Your task to perform on an android device: change the clock display to analog Image 0: 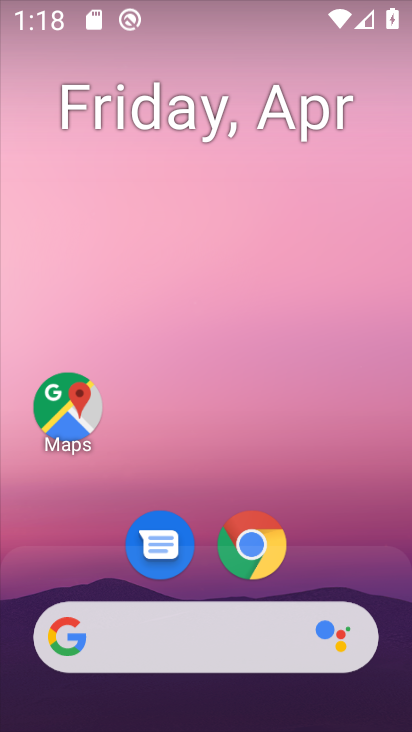
Step 0: drag from (350, 390) to (347, 164)
Your task to perform on an android device: change the clock display to analog Image 1: 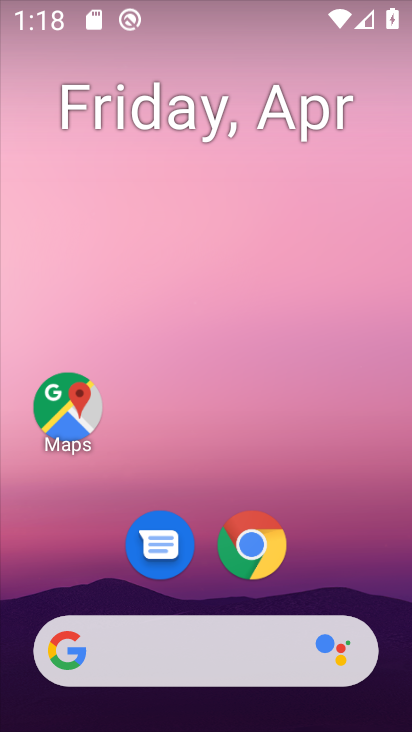
Step 1: drag from (375, 571) to (342, 142)
Your task to perform on an android device: change the clock display to analog Image 2: 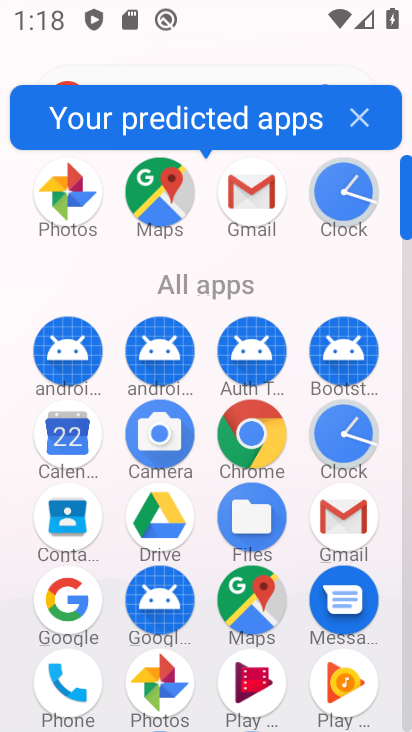
Step 2: click (335, 429)
Your task to perform on an android device: change the clock display to analog Image 3: 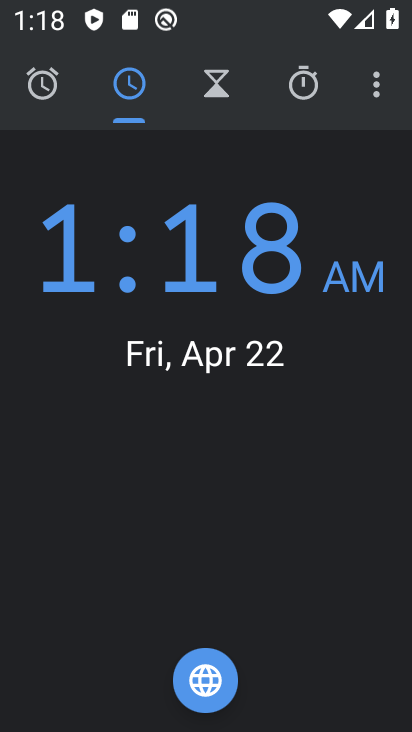
Step 3: click (384, 91)
Your task to perform on an android device: change the clock display to analog Image 4: 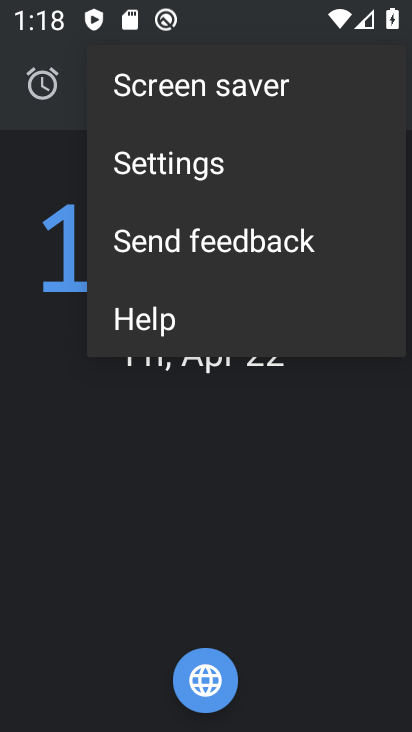
Step 4: click (217, 162)
Your task to perform on an android device: change the clock display to analog Image 5: 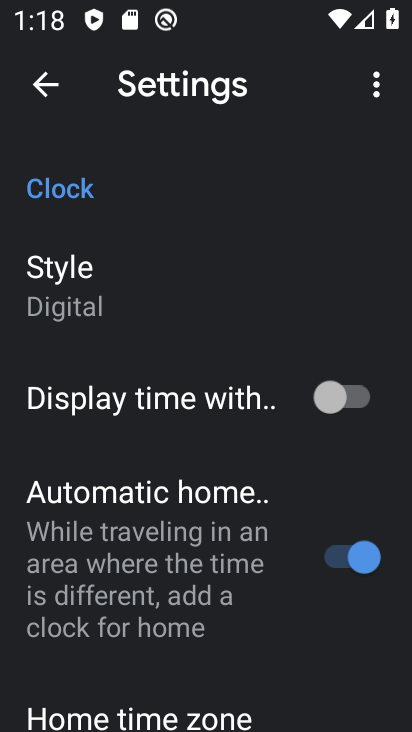
Step 5: click (144, 276)
Your task to perform on an android device: change the clock display to analog Image 6: 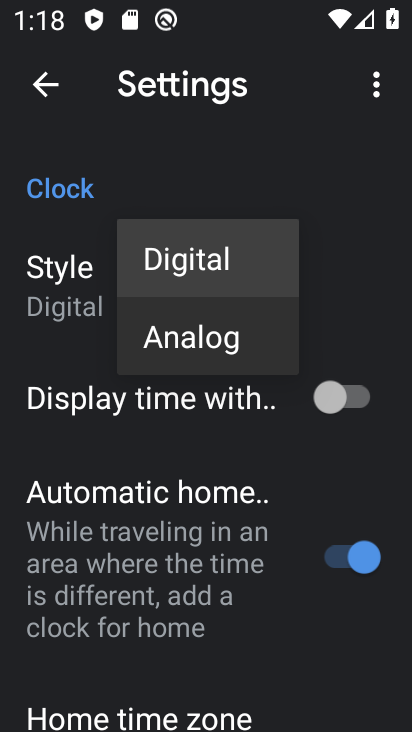
Step 6: click (190, 328)
Your task to perform on an android device: change the clock display to analog Image 7: 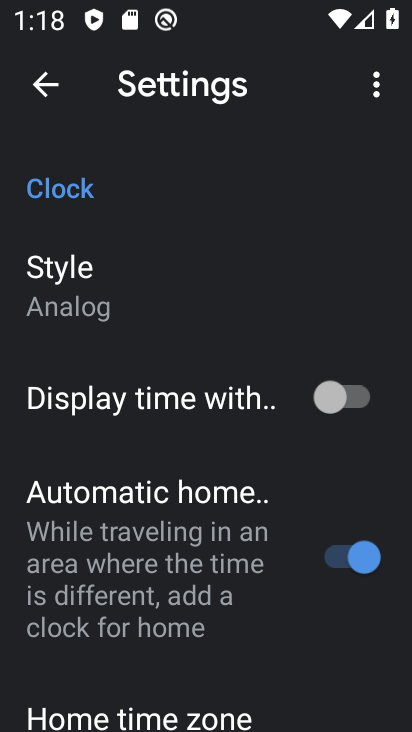
Step 7: task complete